Your task to perform on an android device: turn pop-ups off in chrome Image 0: 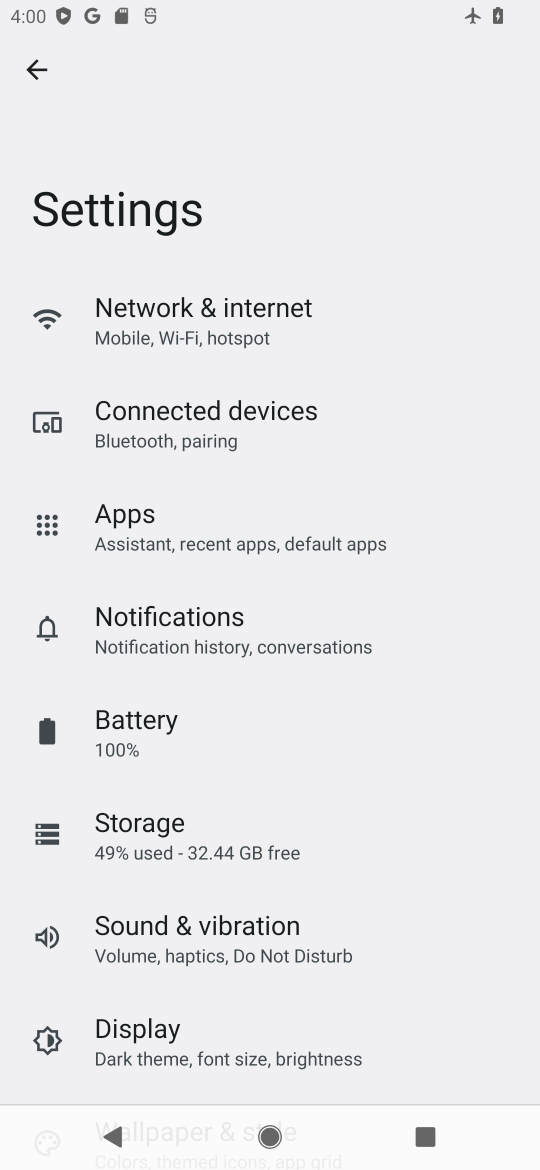
Step 0: press back button
Your task to perform on an android device: turn pop-ups off in chrome Image 1: 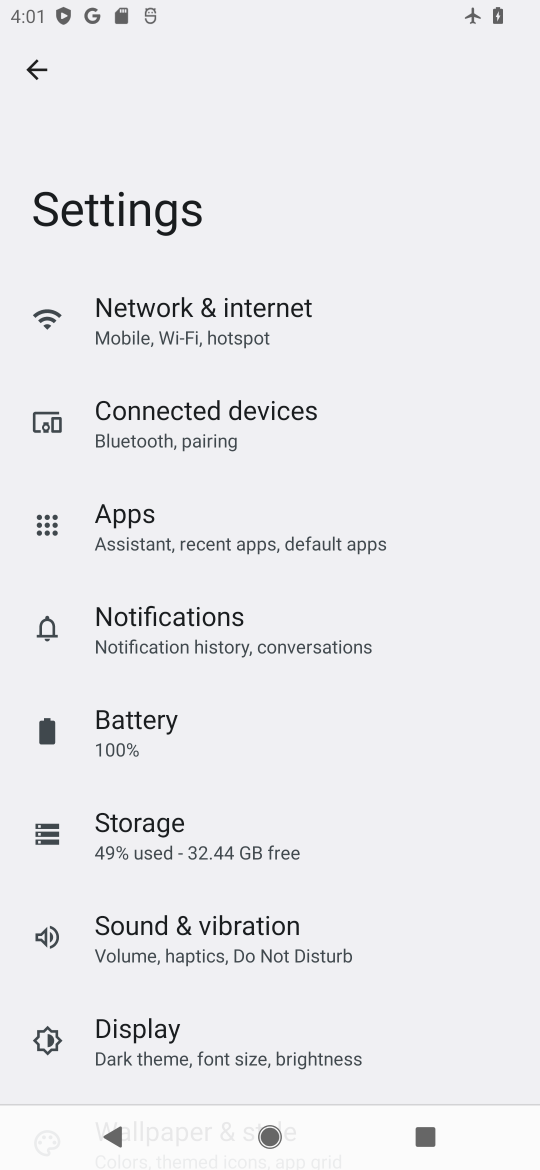
Step 1: press back button
Your task to perform on an android device: turn pop-ups off in chrome Image 2: 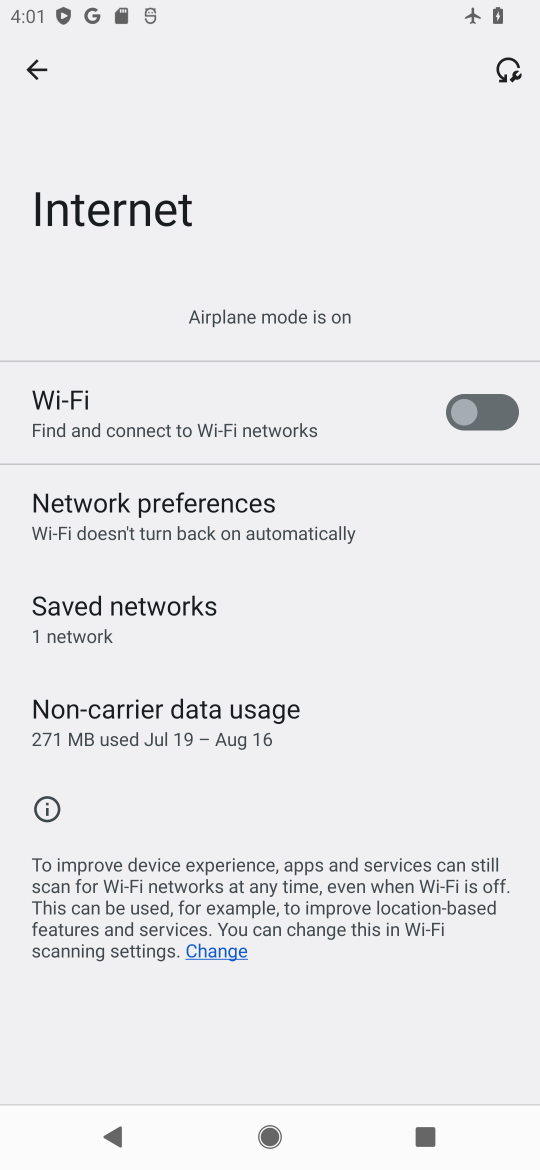
Step 2: press back button
Your task to perform on an android device: turn pop-ups off in chrome Image 3: 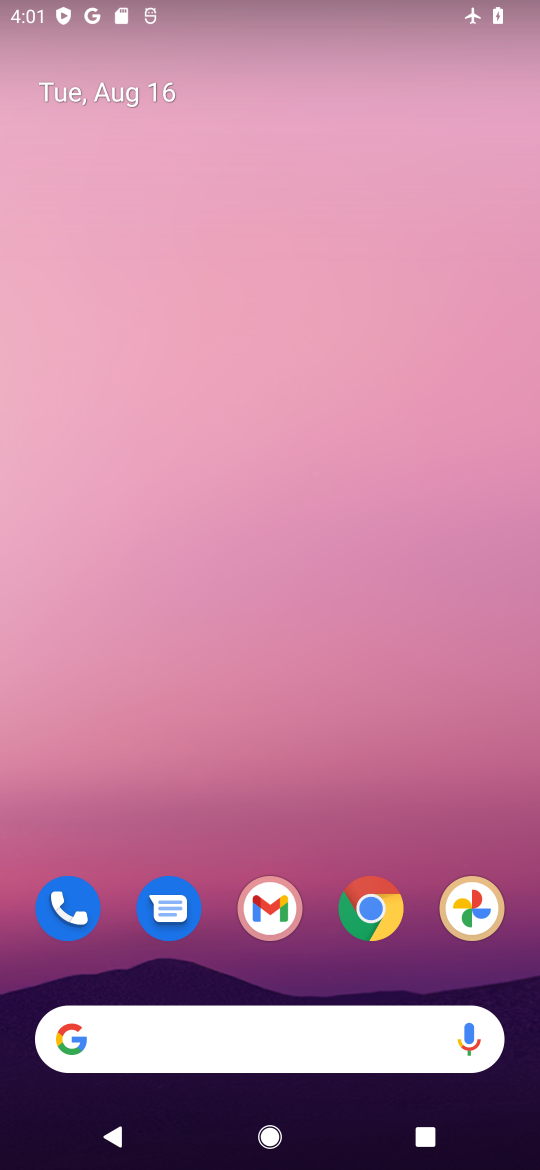
Step 3: click (381, 900)
Your task to perform on an android device: turn pop-ups off in chrome Image 4: 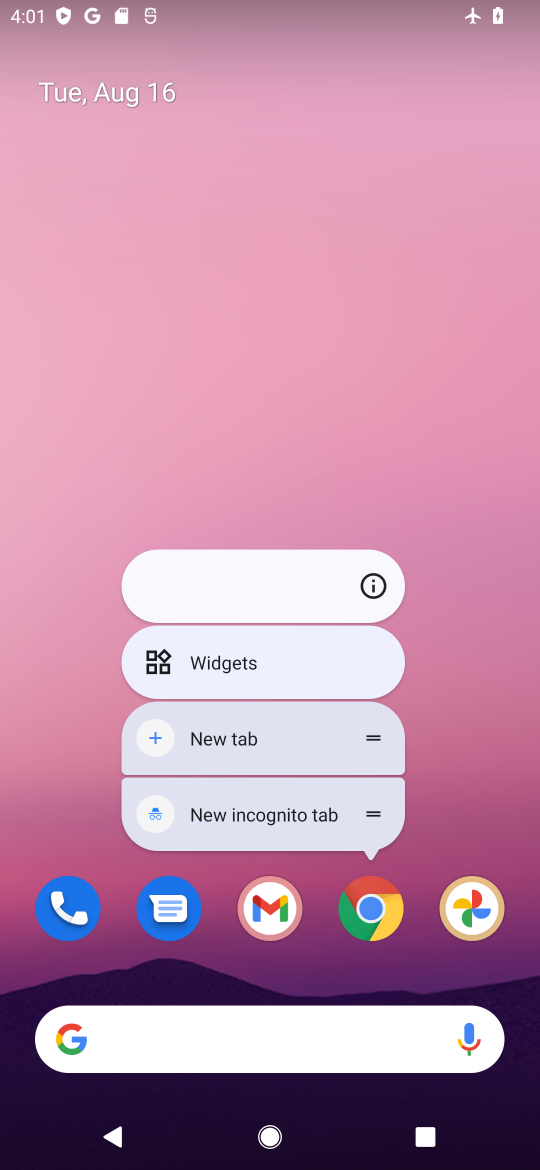
Step 4: click (379, 907)
Your task to perform on an android device: turn pop-ups off in chrome Image 5: 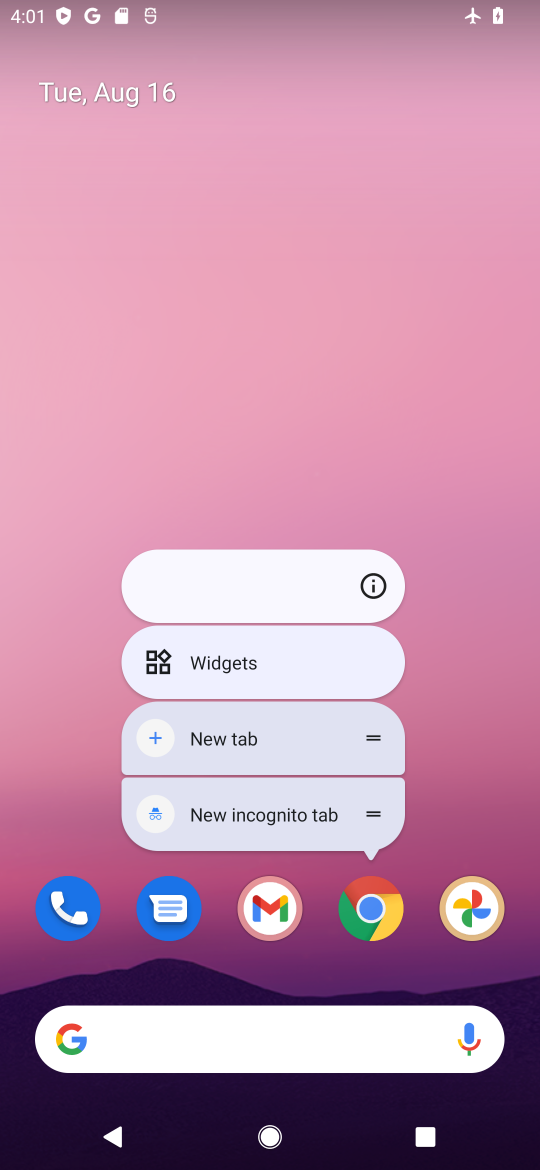
Step 5: click (376, 914)
Your task to perform on an android device: turn pop-ups off in chrome Image 6: 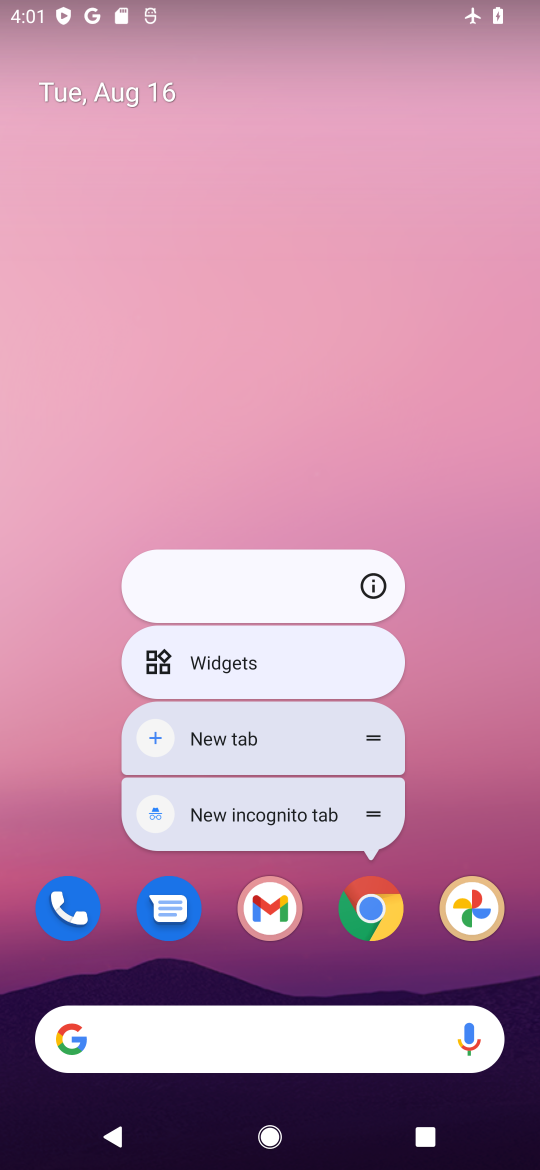
Step 6: click (375, 910)
Your task to perform on an android device: turn pop-ups off in chrome Image 7: 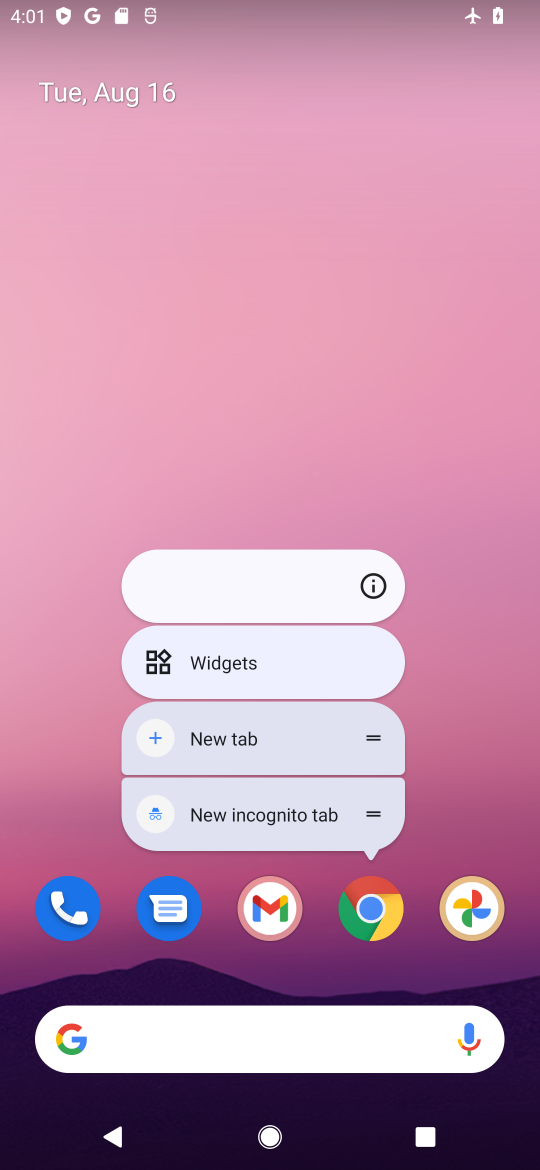
Step 7: click (375, 910)
Your task to perform on an android device: turn pop-ups off in chrome Image 8: 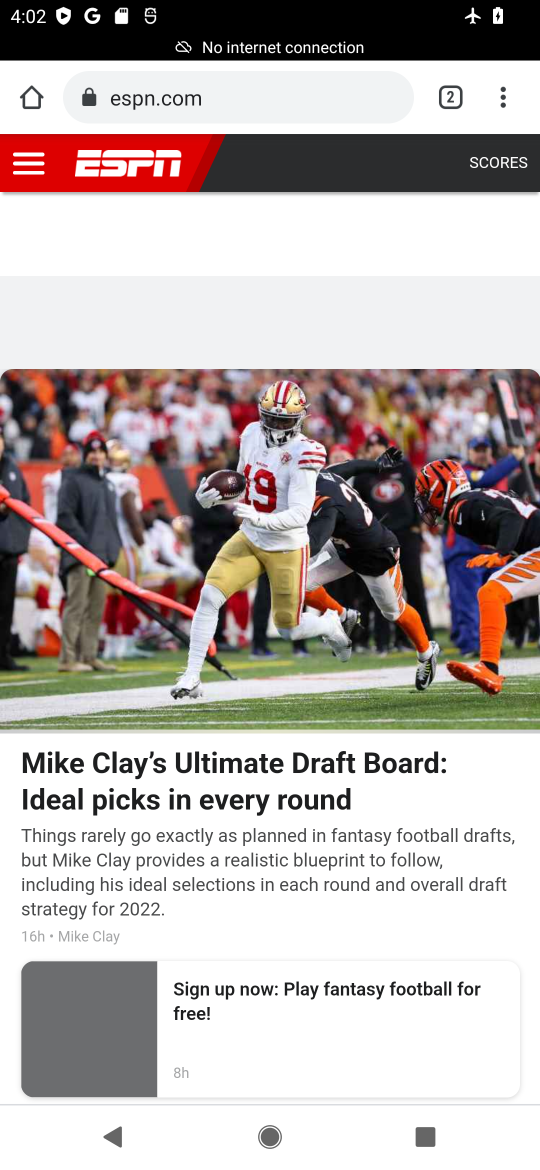
Step 8: drag from (502, 89) to (306, 906)
Your task to perform on an android device: turn pop-ups off in chrome Image 9: 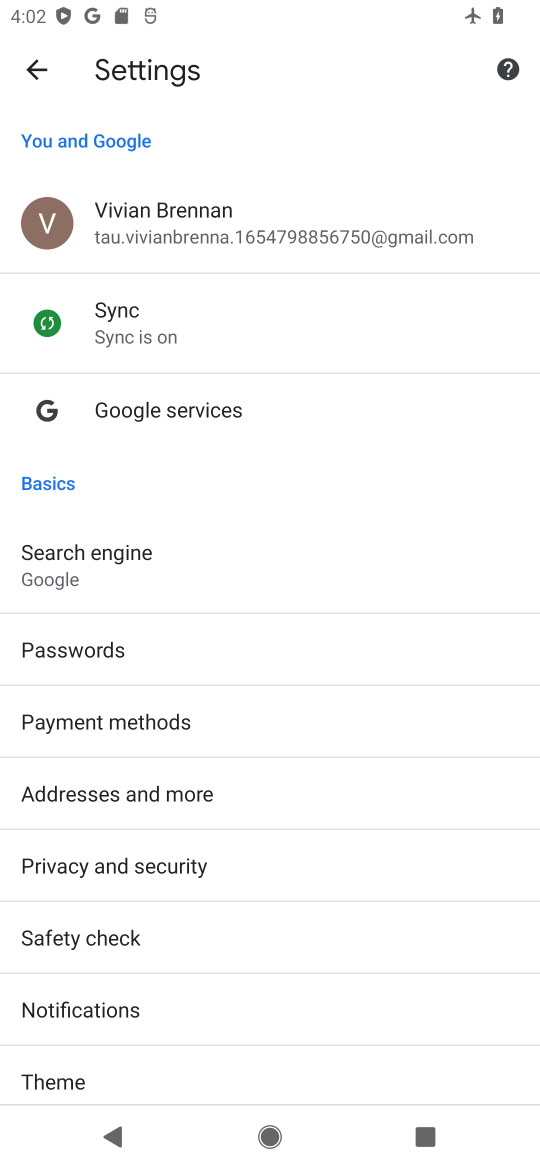
Step 9: drag from (213, 904) to (392, 22)
Your task to perform on an android device: turn pop-ups off in chrome Image 10: 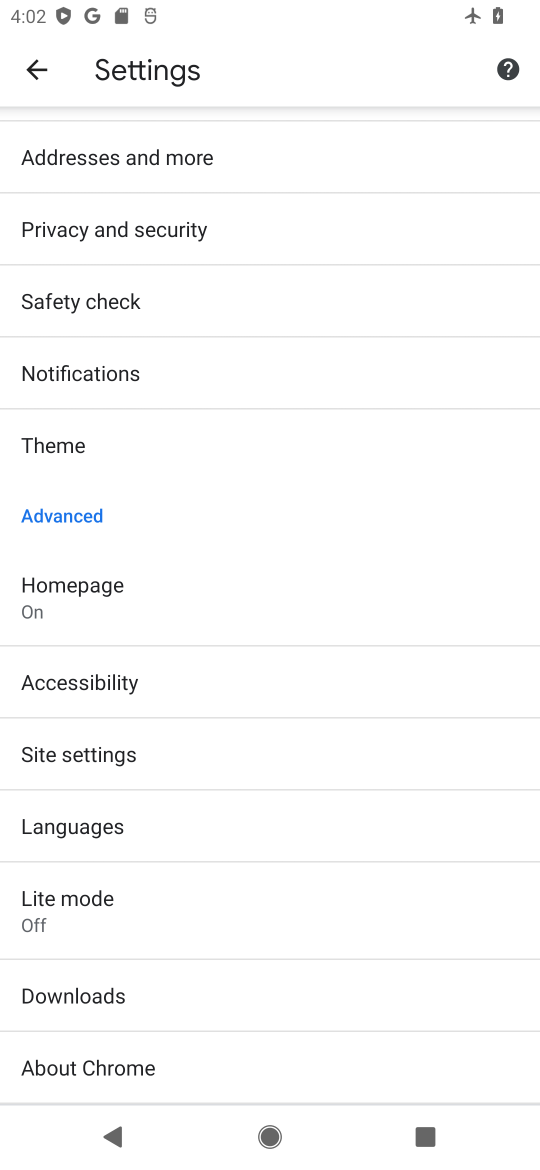
Step 10: click (83, 740)
Your task to perform on an android device: turn pop-ups off in chrome Image 11: 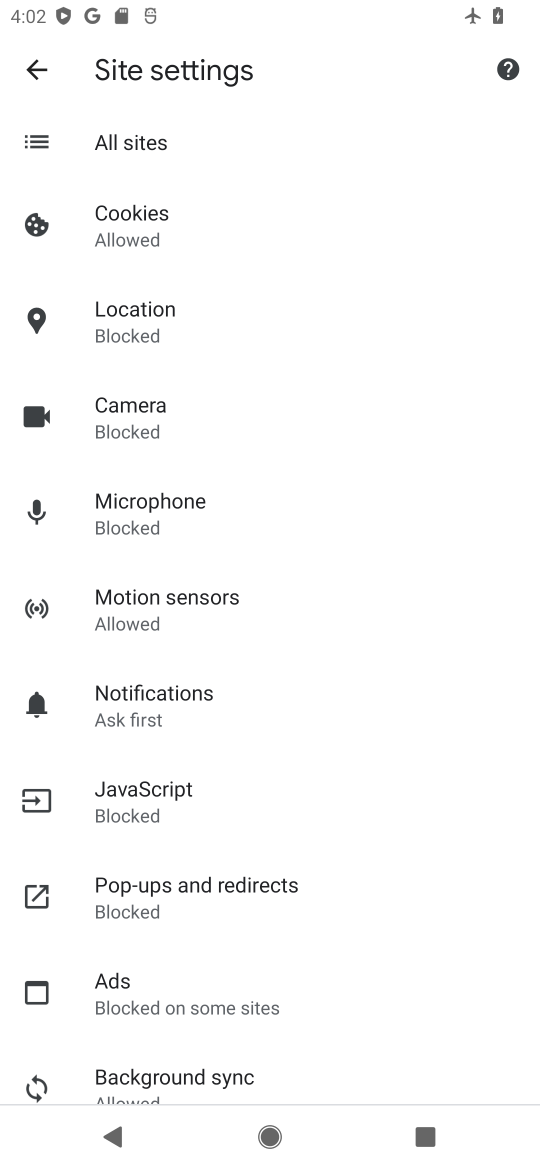
Step 11: click (207, 885)
Your task to perform on an android device: turn pop-ups off in chrome Image 12: 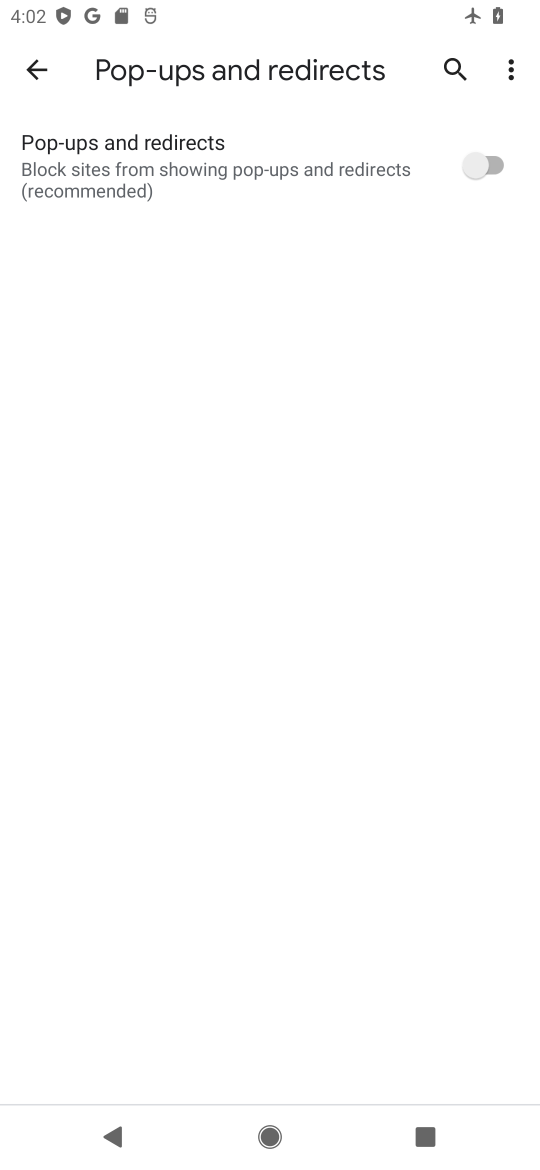
Step 12: task complete